Your task to perform on an android device: change text size in settings app Image 0: 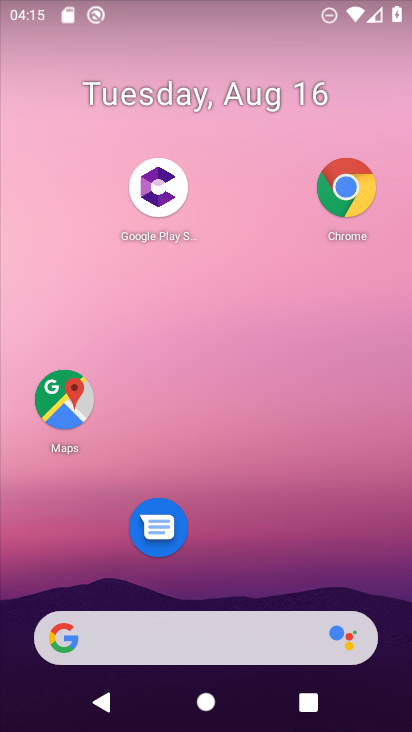
Step 0: press home button
Your task to perform on an android device: change text size in settings app Image 1: 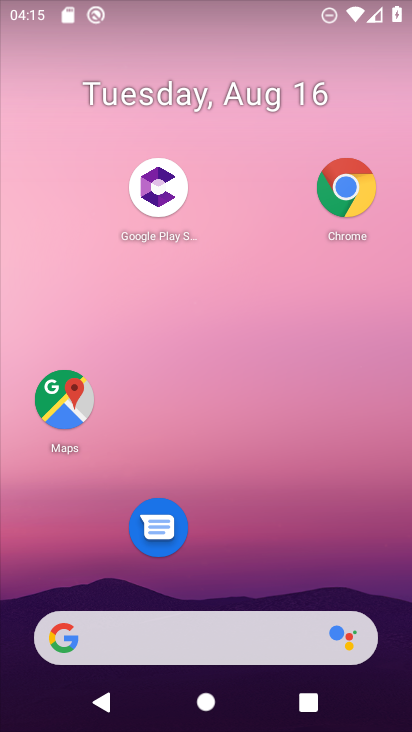
Step 1: drag from (230, 594) to (241, 3)
Your task to perform on an android device: change text size in settings app Image 2: 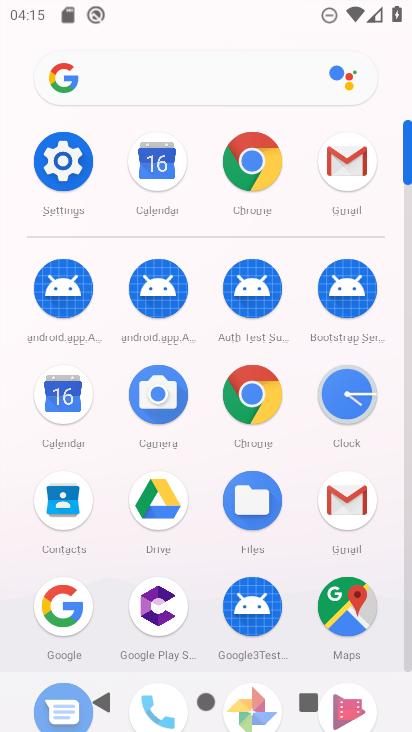
Step 2: click (61, 153)
Your task to perform on an android device: change text size in settings app Image 3: 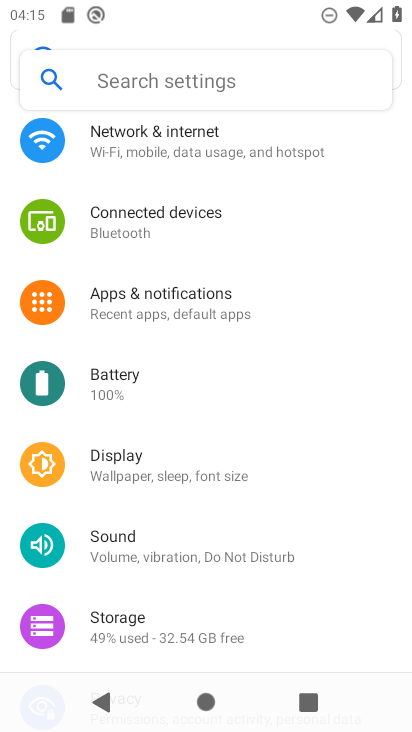
Step 3: click (159, 458)
Your task to perform on an android device: change text size in settings app Image 4: 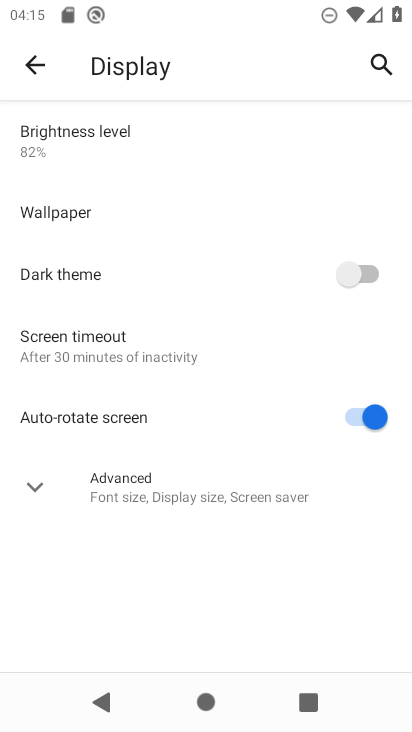
Step 4: click (33, 490)
Your task to perform on an android device: change text size in settings app Image 5: 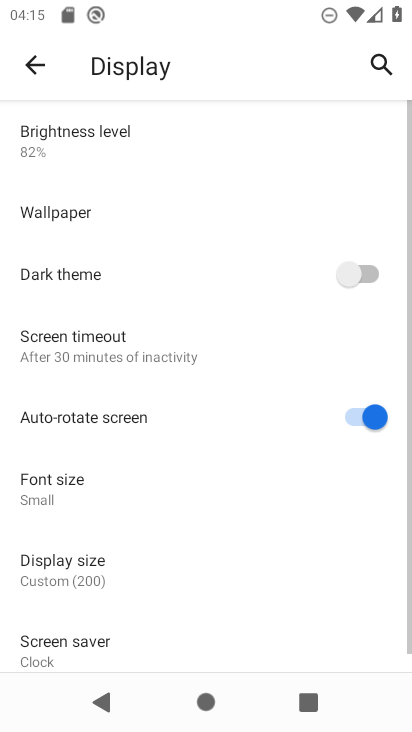
Step 5: click (105, 497)
Your task to perform on an android device: change text size in settings app Image 6: 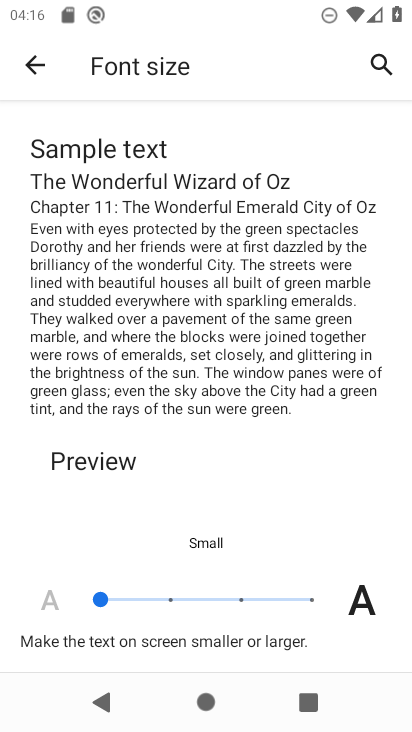
Step 6: click (164, 598)
Your task to perform on an android device: change text size in settings app Image 7: 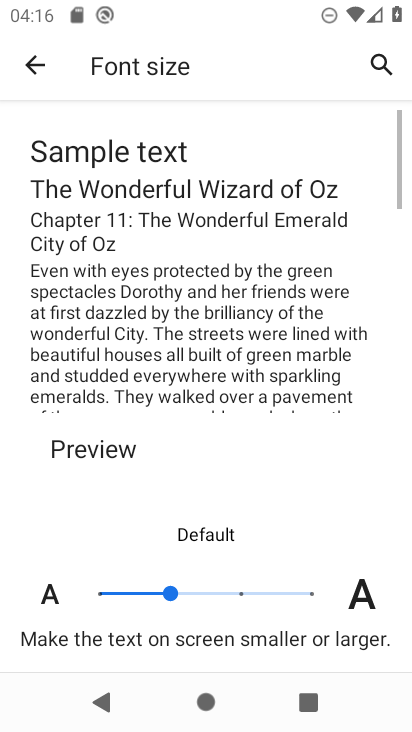
Step 7: task complete